Your task to perform on an android device: Open the calendar and show me this week's events? Image 0: 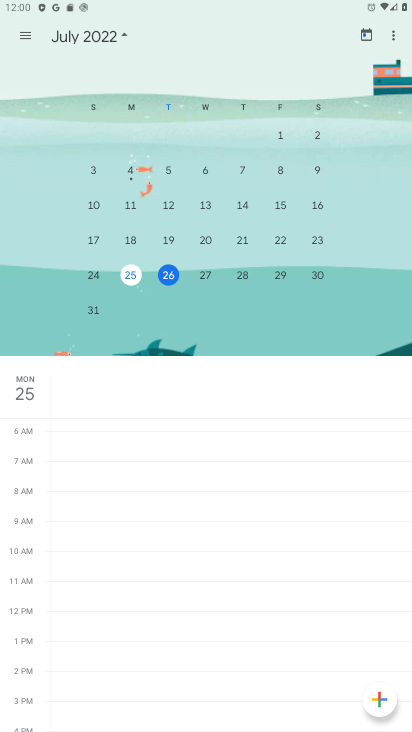
Step 0: click (20, 32)
Your task to perform on an android device: Open the calendar and show me this week's events? Image 1: 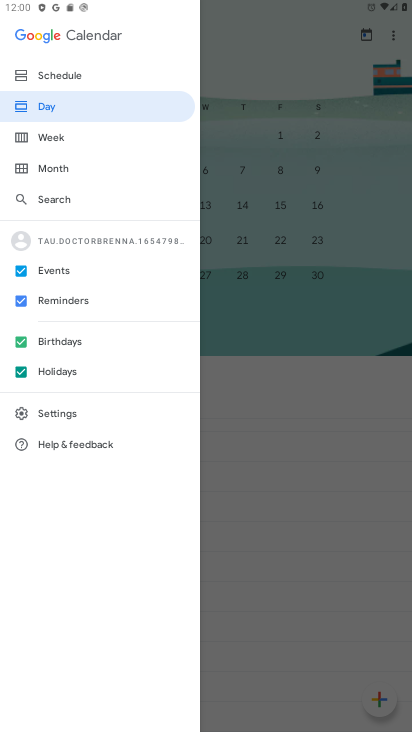
Step 1: click (50, 135)
Your task to perform on an android device: Open the calendar and show me this week's events? Image 2: 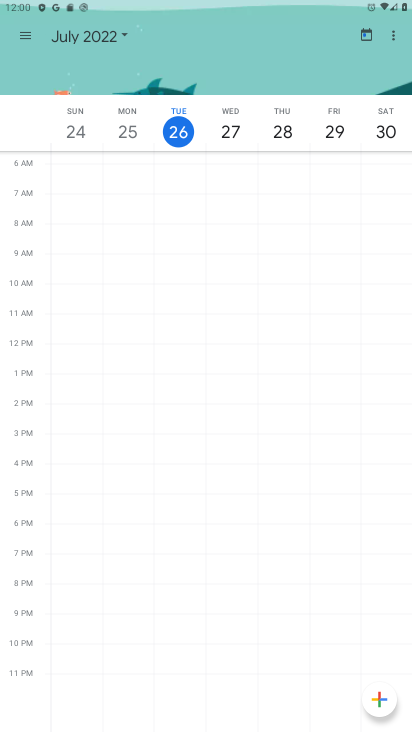
Step 2: task complete